Your task to perform on an android device: Open network settings Image 0: 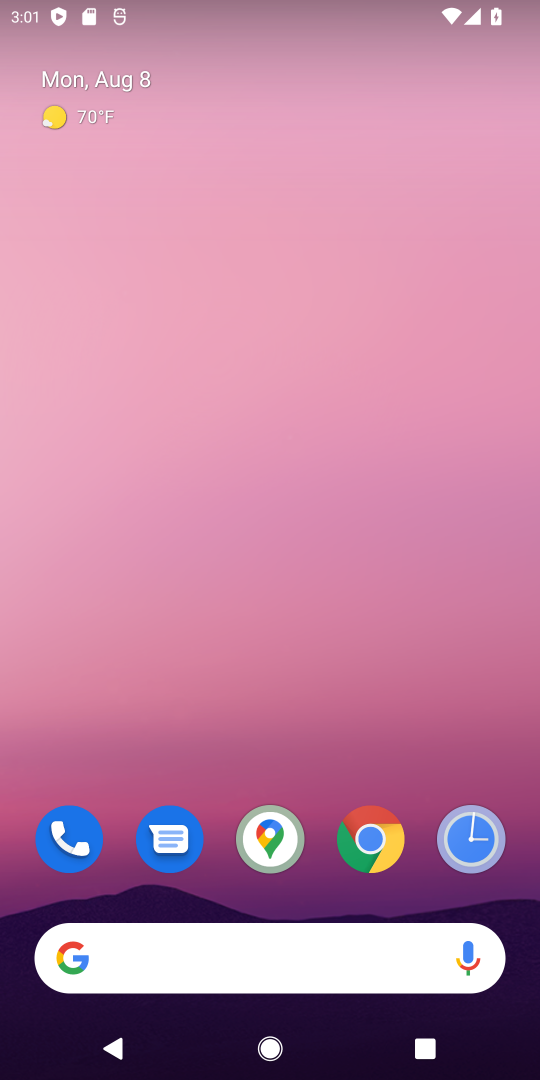
Step 0: press home button
Your task to perform on an android device: Open network settings Image 1: 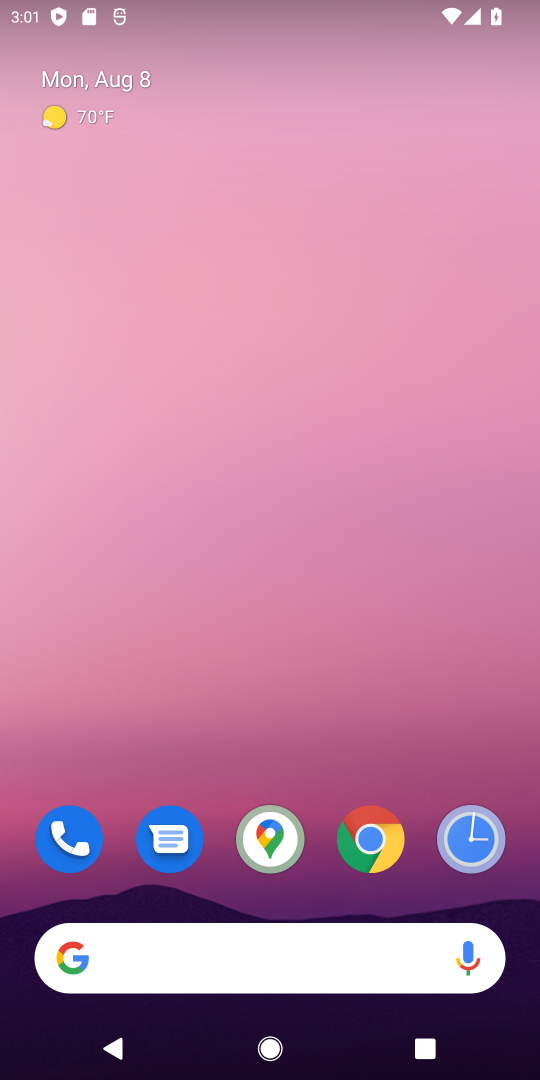
Step 1: drag from (427, 784) to (460, 369)
Your task to perform on an android device: Open network settings Image 2: 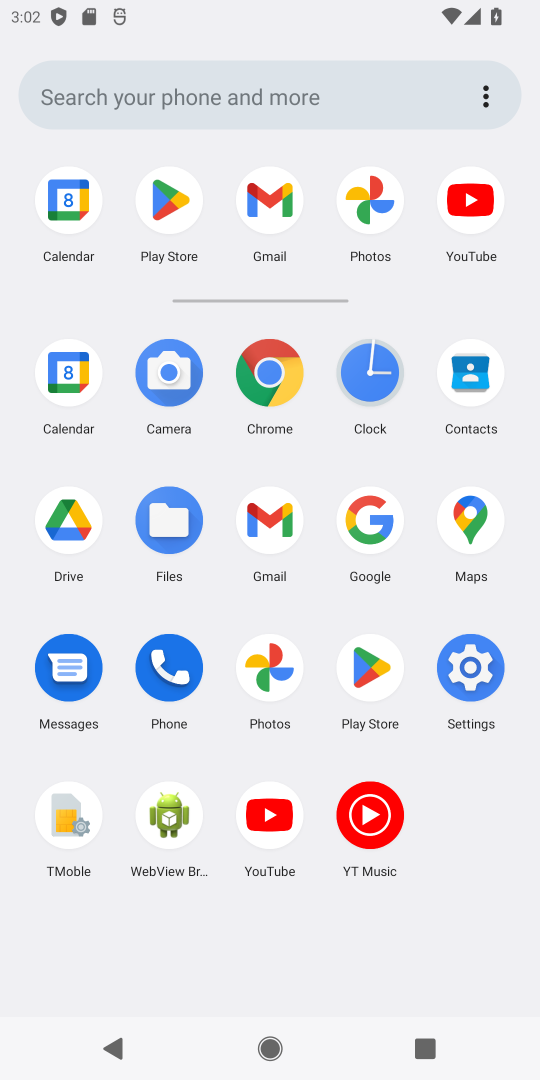
Step 2: click (459, 677)
Your task to perform on an android device: Open network settings Image 3: 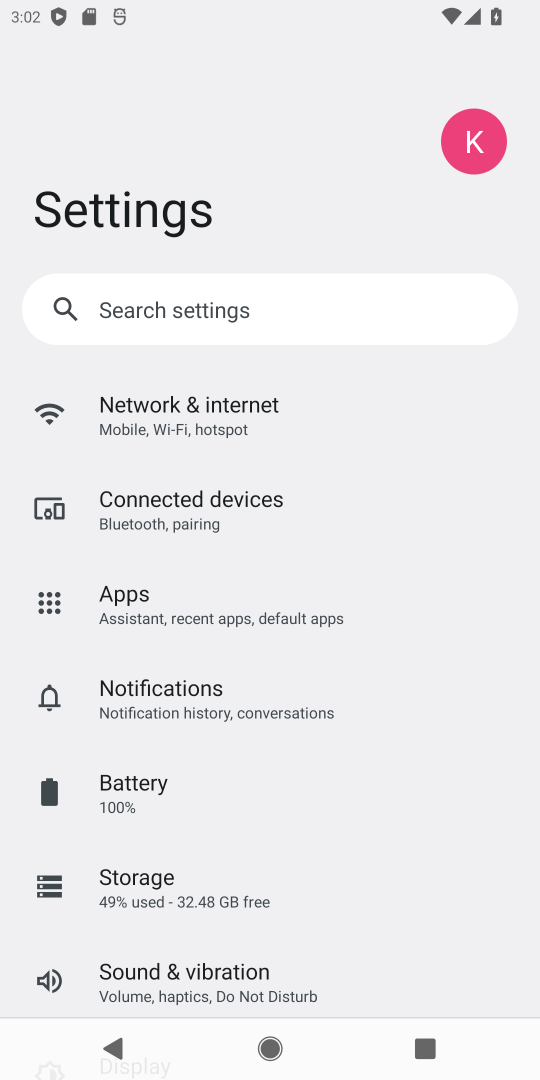
Step 3: drag from (463, 846) to (465, 689)
Your task to perform on an android device: Open network settings Image 4: 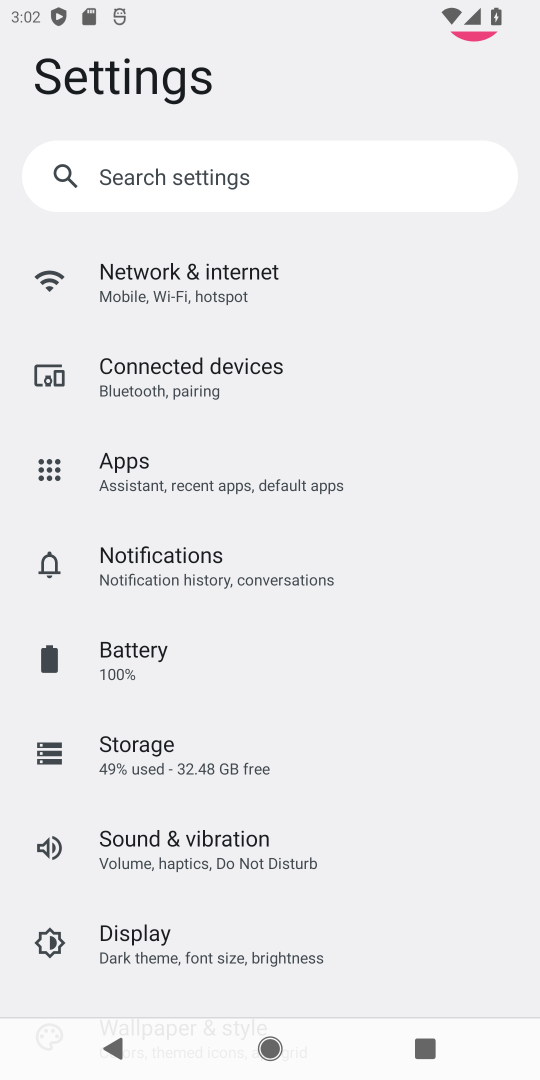
Step 4: drag from (453, 821) to (479, 632)
Your task to perform on an android device: Open network settings Image 5: 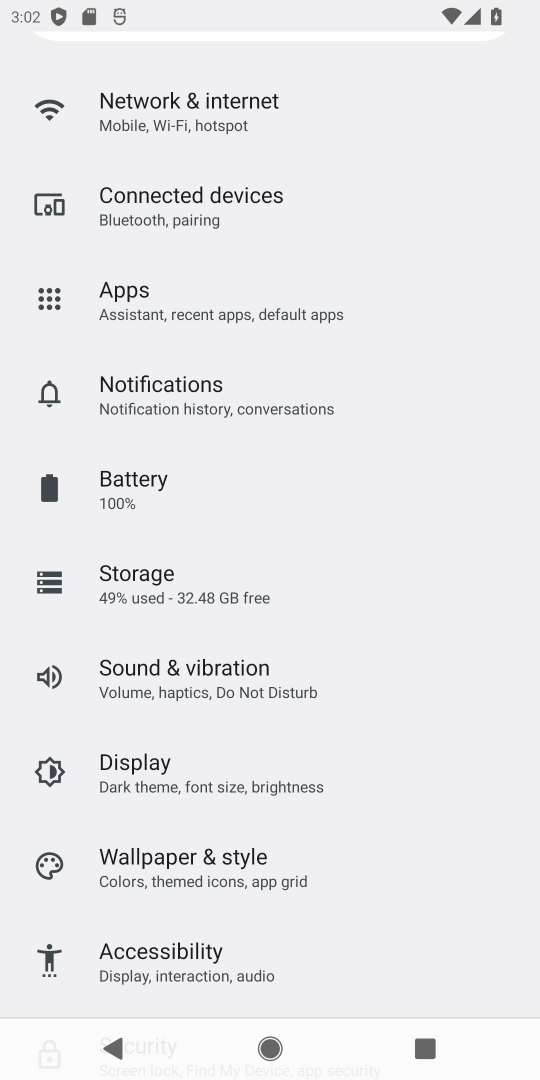
Step 5: drag from (469, 749) to (477, 618)
Your task to perform on an android device: Open network settings Image 6: 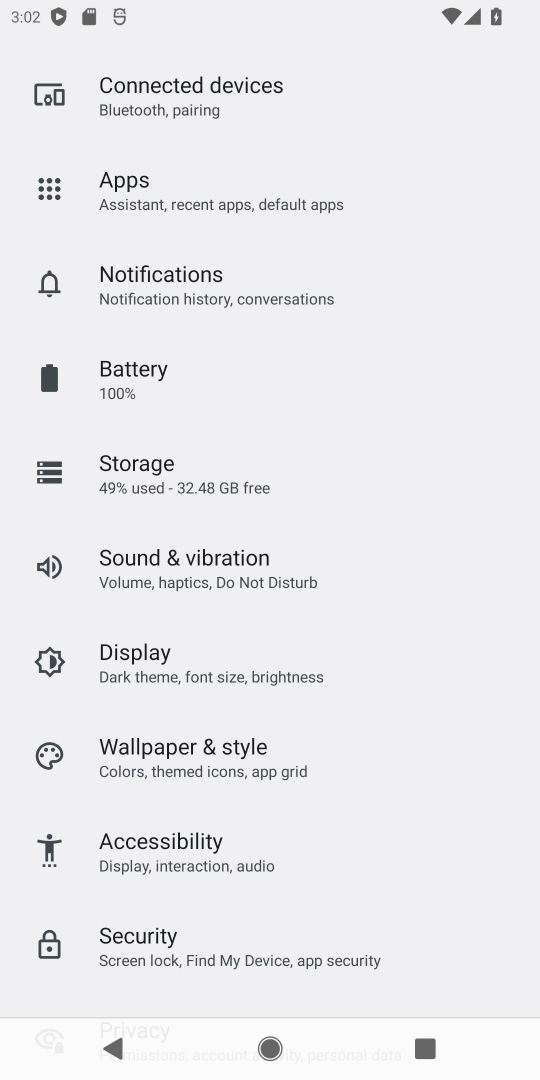
Step 6: drag from (480, 834) to (490, 667)
Your task to perform on an android device: Open network settings Image 7: 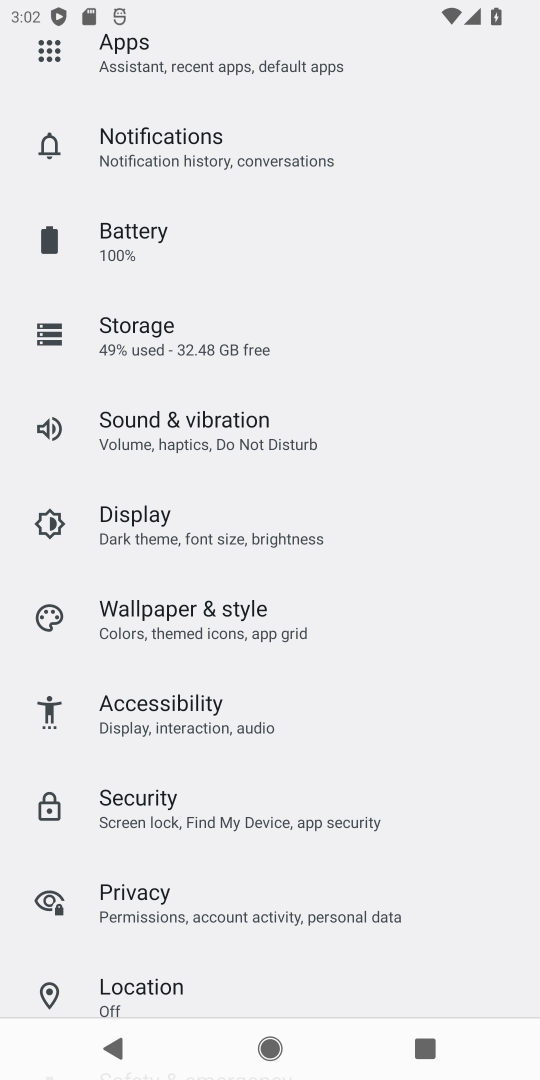
Step 7: drag from (453, 885) to (461, 677)
Your task to perform on an android device: Open network settings Image 8: 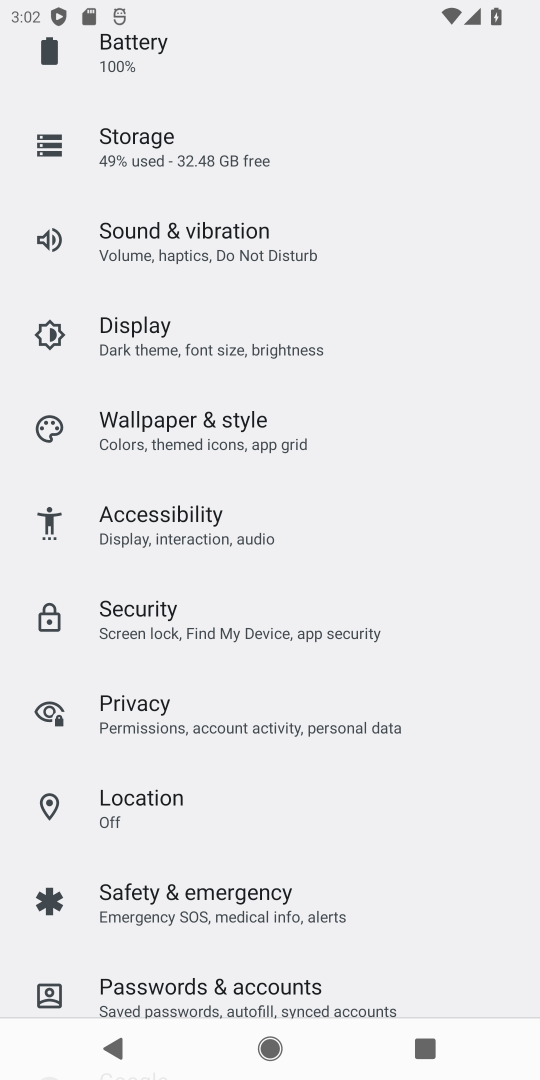
Step 8: drag from (464, 910) to (471, 647)
Your task to perform on an android device: Open network settings Image 9: 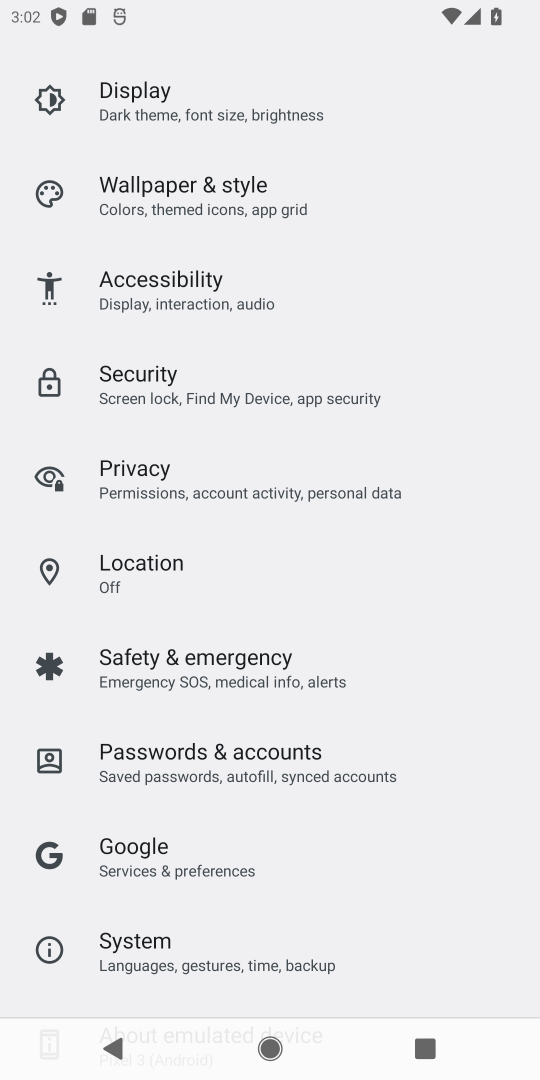
Step 9: drag from (472, 477) to (494, 718)
Your task to perform on an android device: Open network settings Image 10: 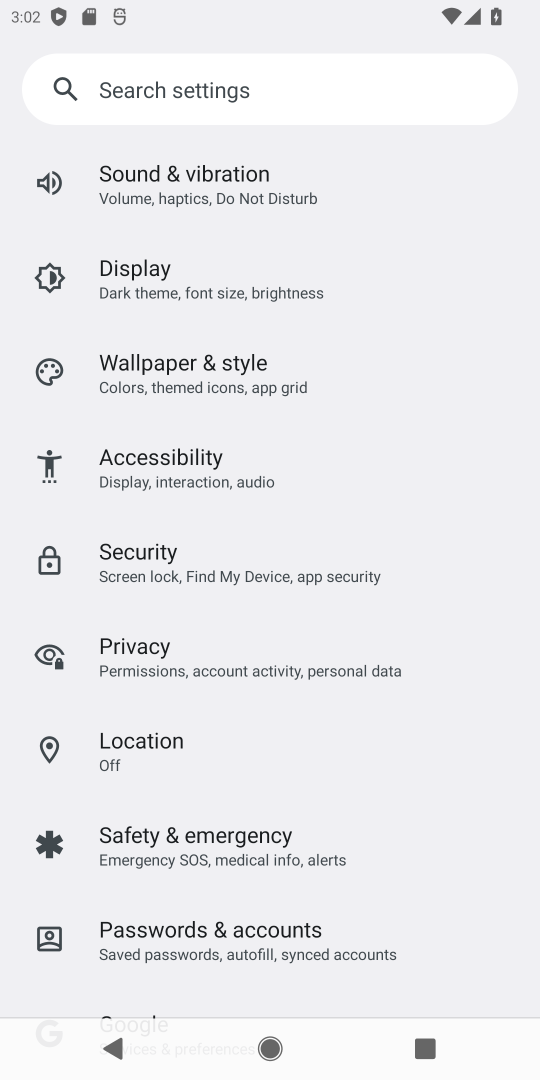
Step 10: drag from (469, 291) to (456, 528)
Your task to perform on an android device: Open network settings Image 11: 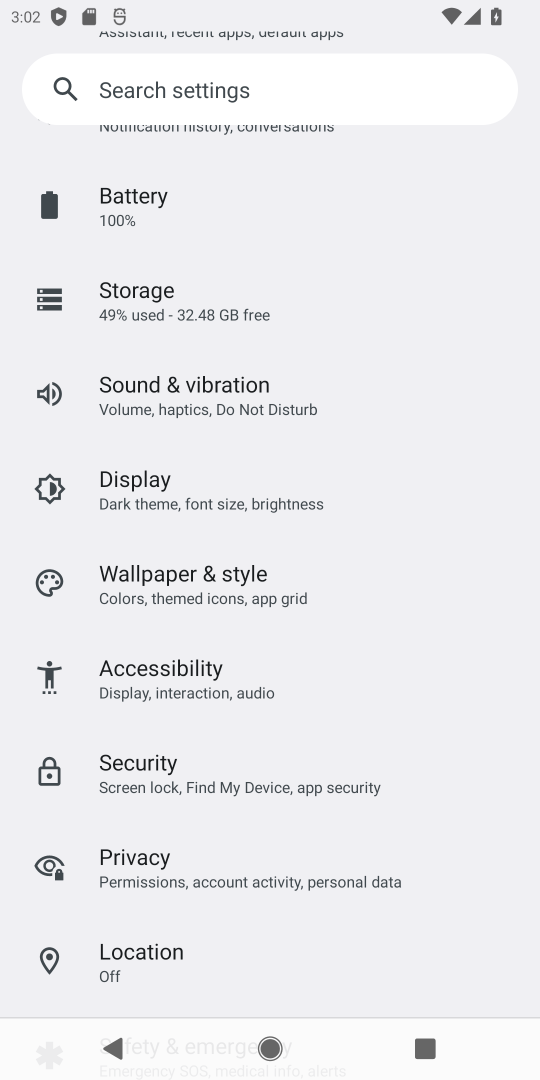
Step 11: drag from (436, 242) to (446, 516)
Your task to perform on an android device: Open network settings Image 12: 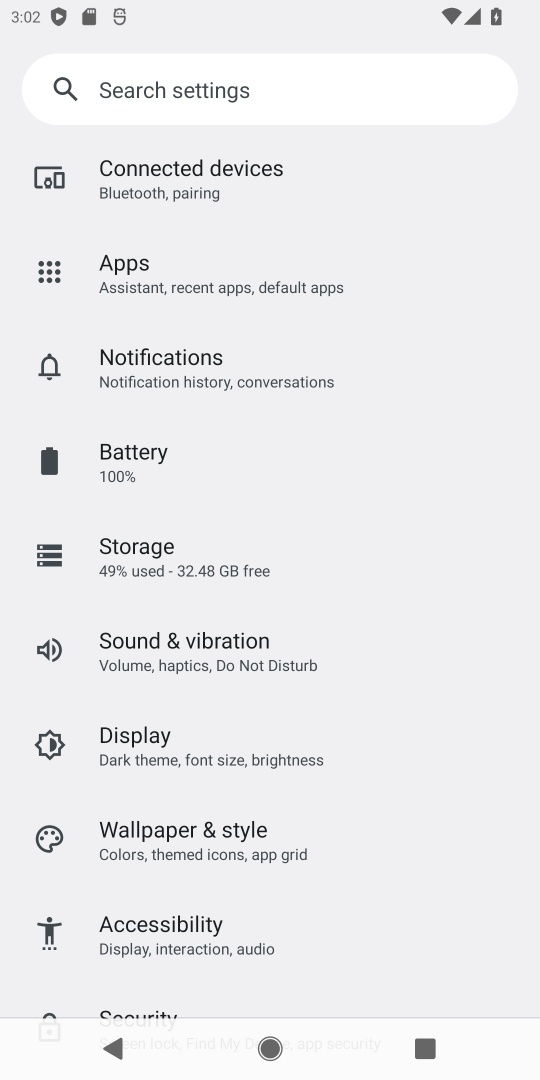
Step 12: drag from (437, 200) to (420, 516)
Your task to perform on an android device: Open network settings Image 13: 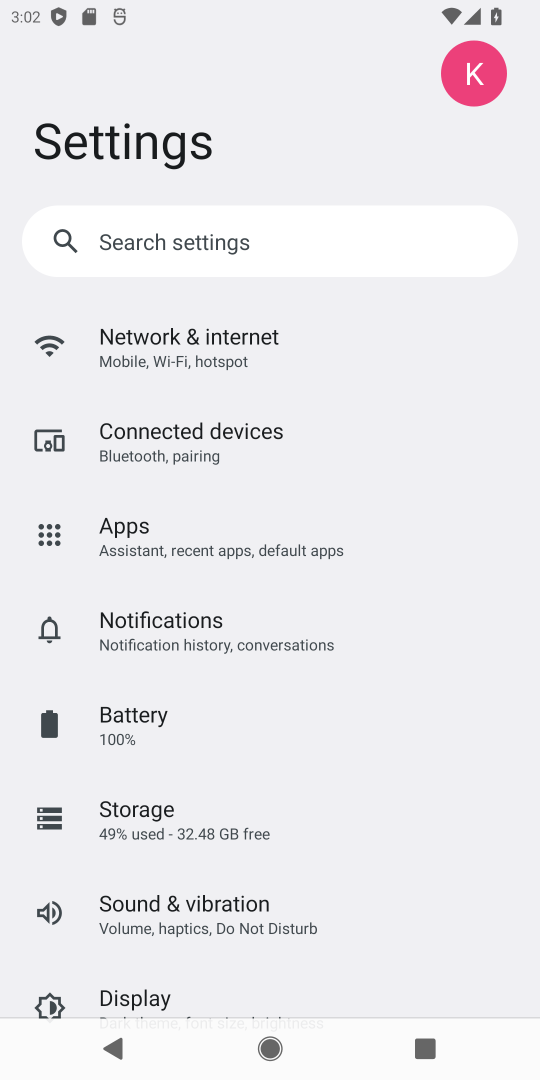
Step 13: click (315, 363)
Your task to perform on an android device: Open network settings Image 14: 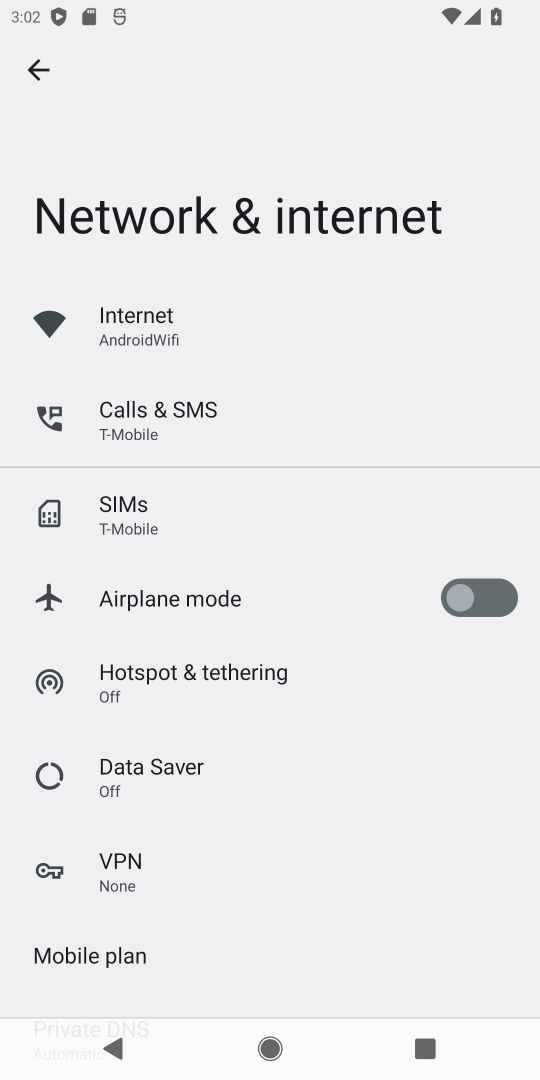
Step 14: task complete